Your task to perform on an android device: Go to eBay Image 0: 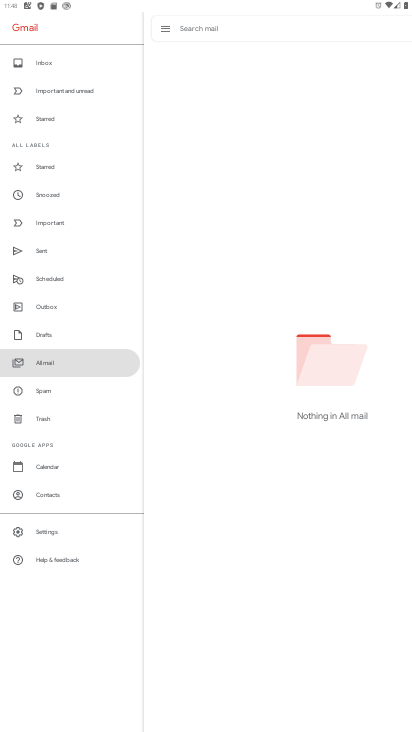
Step 0: press home button
Your task to perform on an android device: Go to eBay Image 1: 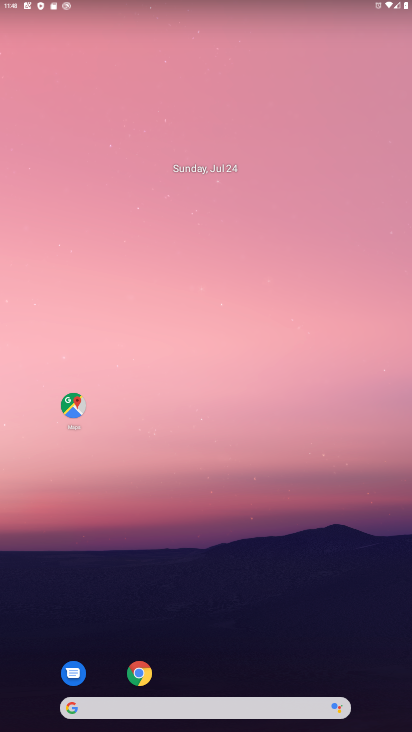
Step 1: drag from (249, 605) to (237, 1)
Your task to perform on an android device: Go to eBay Image 2: 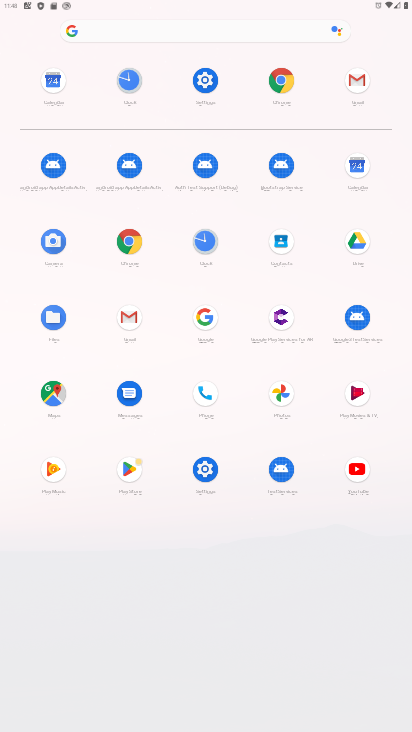
Step 2: click (280, 78)
Your task to perform on an android device: Go to eBay Image 3: 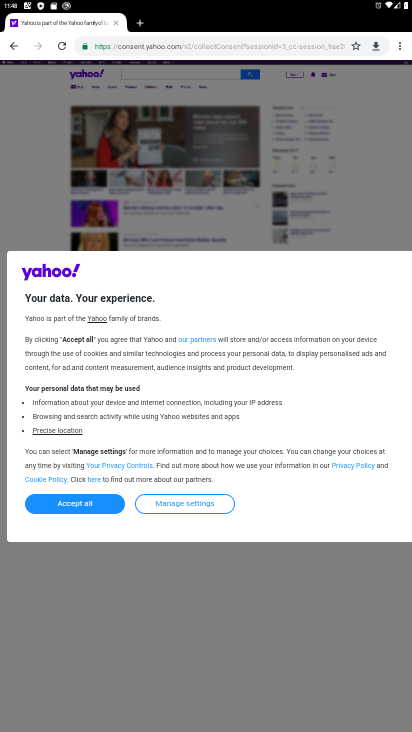
Step 3: click (232, 49)
Your task to perform on an android device: Go to eBay Image 4: 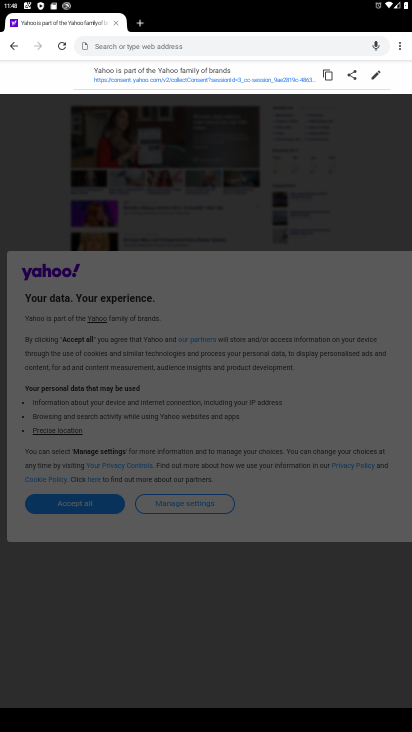
Step 4: type "ebay"
Your task to perform on an android device: Go to eBay Image 5: 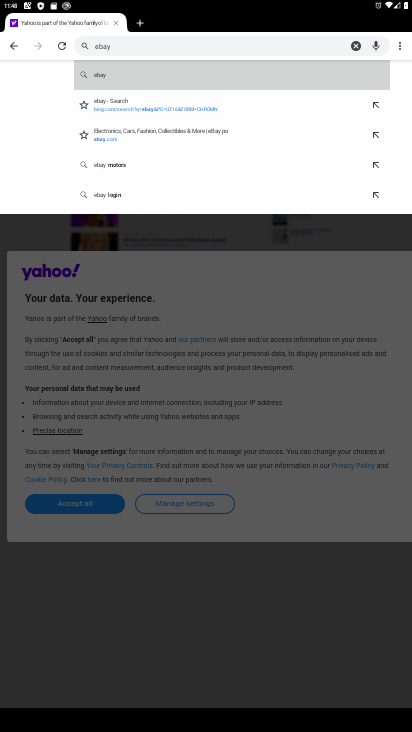
Step 5: click (253, 85)
Your task to perform on an android device: Go to eBay Image 6: 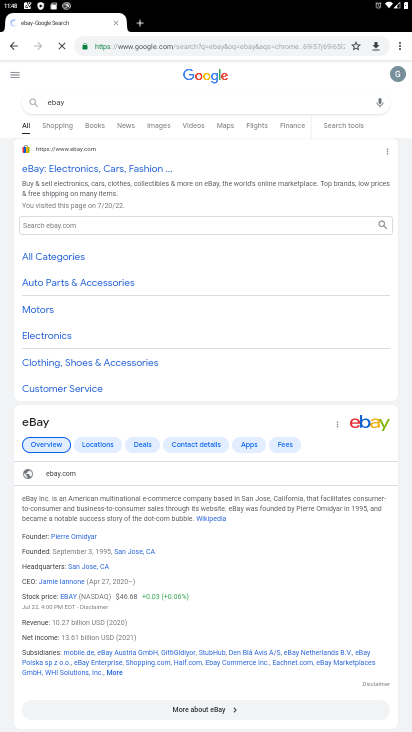
Step 6: click (103, 170)
Your task to perform on an android device: Go to eBay Image 7: 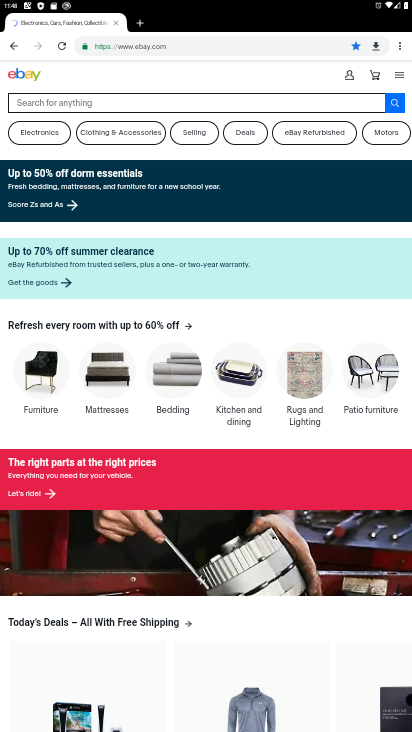
Step 7: task complete